Your task to perform on an android device: Go to battery settings Image 0: 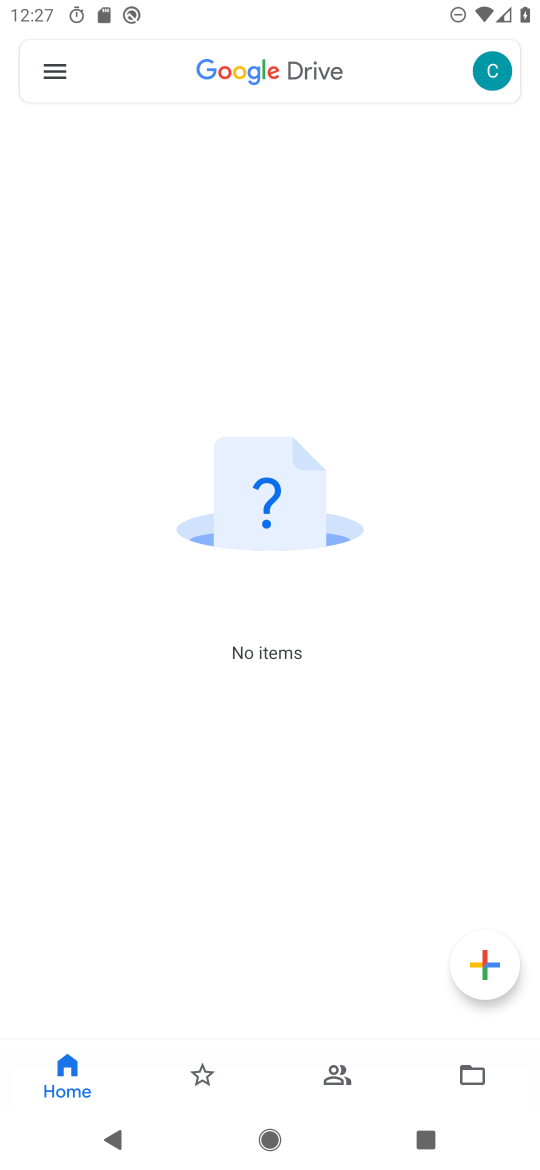
Step 0: press home button
Your task to perform on an android device: Go to battery settings Image 1: 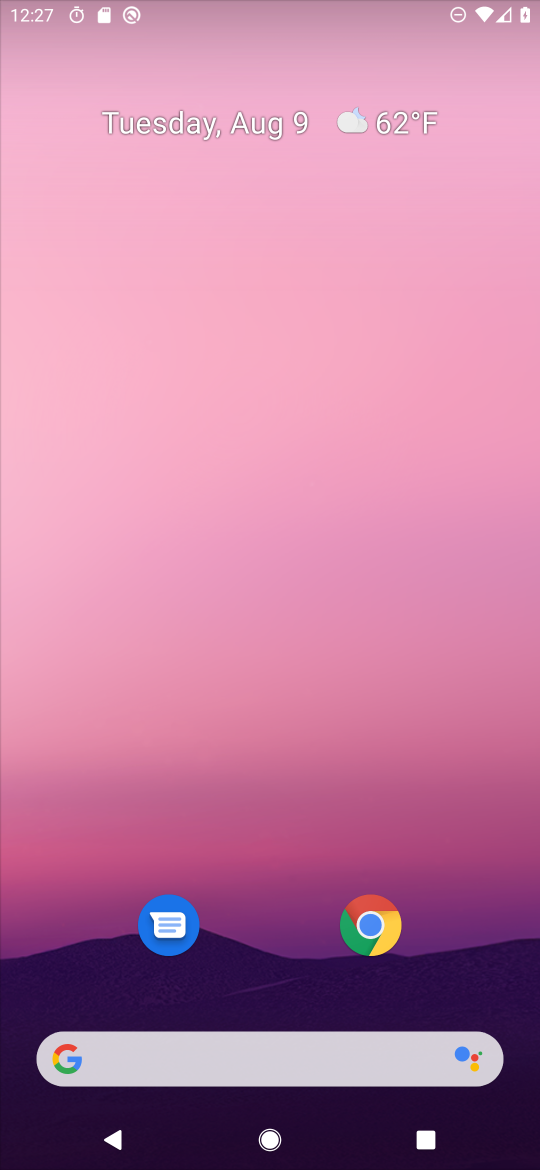
Step 1: drag from (456, 942) to (491, 127)
Your task to perform on an android device: Go to battery settings Image 2: 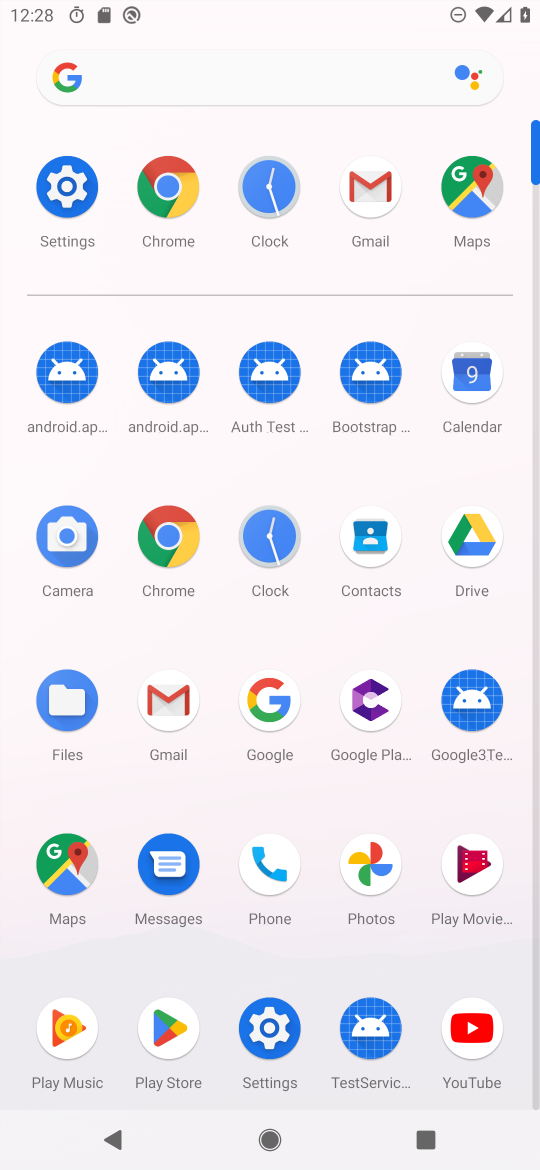
Step 2: click (72, 179)
Your task to perform on an android device: Go to battery settings Image 3: 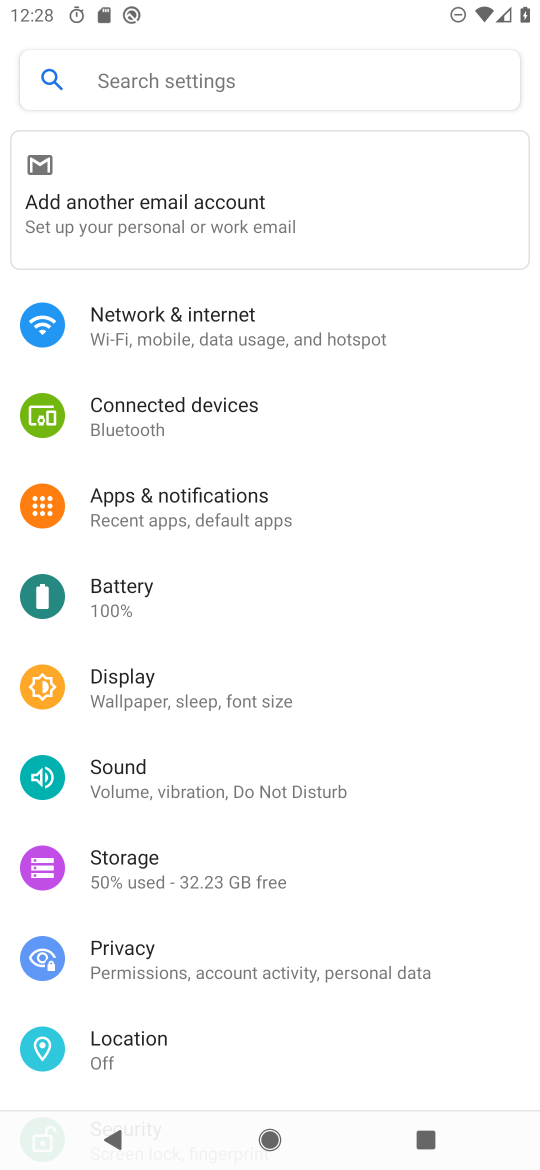
Step 3: click (130, 587)
Your task to perform on an android device: Go to battery settings Image 4: 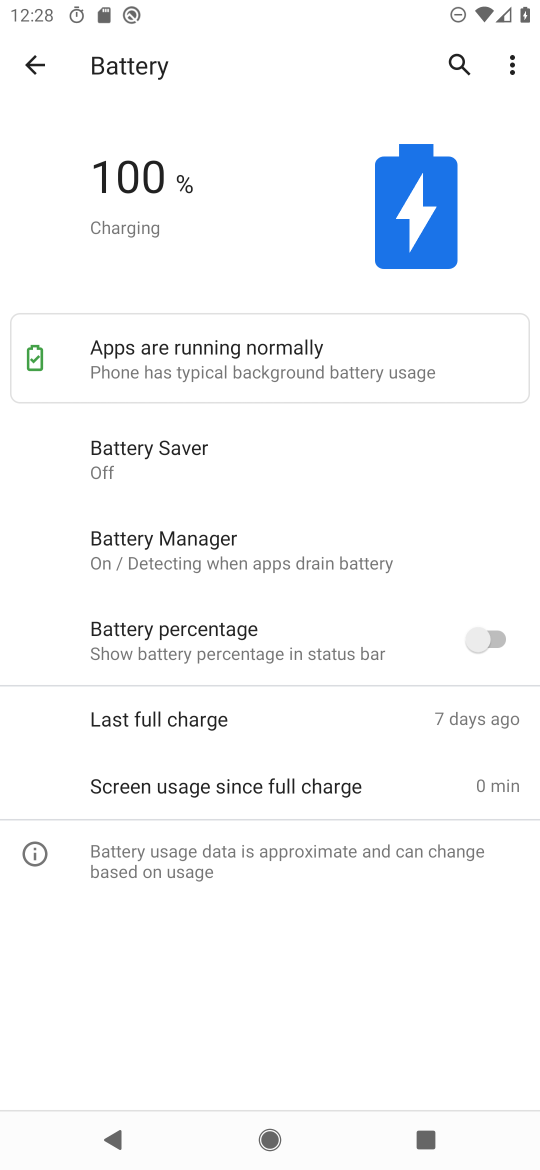
Step 4: task complete